Your task to perform on an android device: toggle priority inbox in the gmail app Image 0: 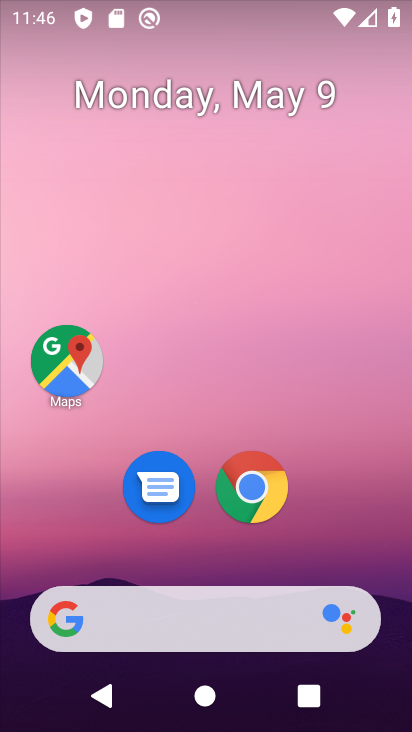
Step 0: drag from (342, 544) to (284, 69)
Your task to perform on an android device: toggle priority inbox in the gmail app Image 1: 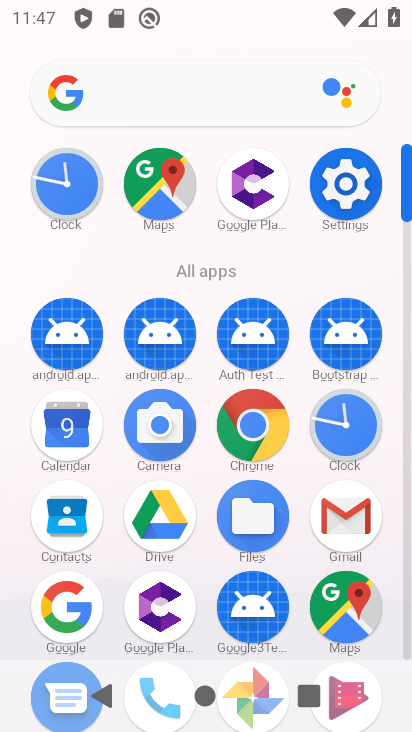
Step 1: click (343, 535)
Your task to perform on an android device: toggle priority inbox in the gmail app Image 2: 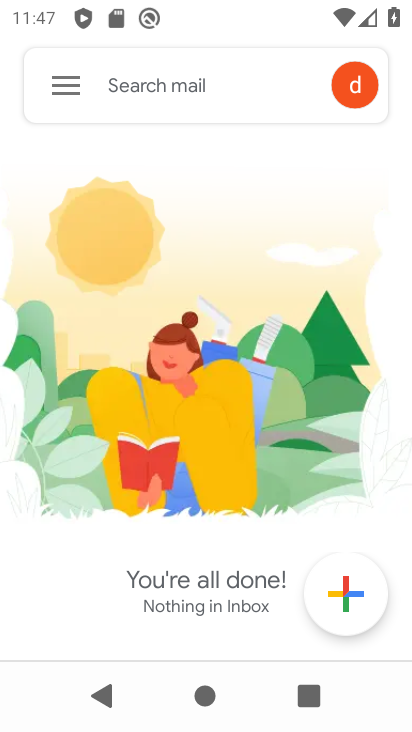
Step 2: click (45, 87)
Your task to perform on an android device: toggle priority inbox in the gmail app Image 3: 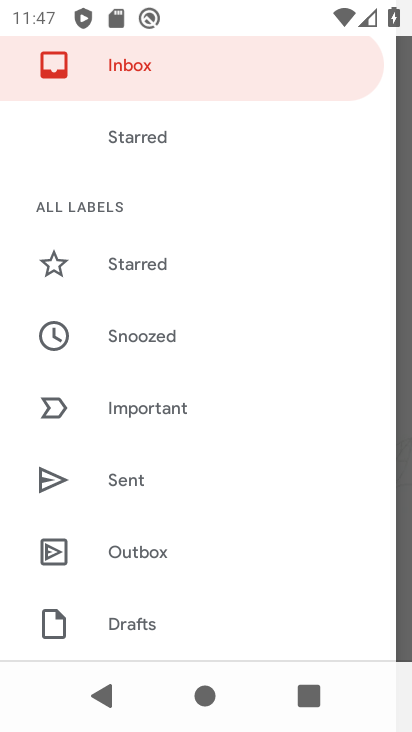
Step 3: drag from (144, 599) to (167, 329)
Your task to perform on an android device: toggle priority inbox in the gmail app Image 4: 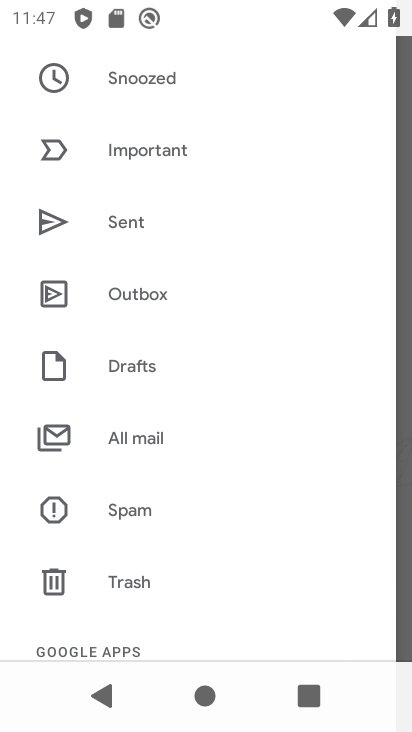
Step 4: drag from (152, 635) to (171, 315)
Your task to perform on an android device: toggle priority inbox in the gmail app Image 5: 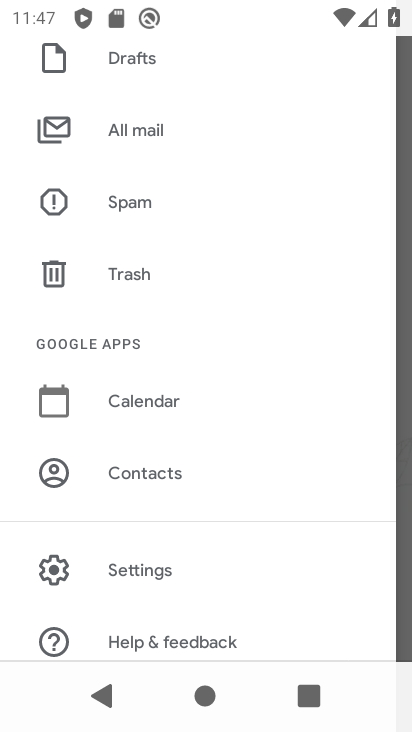
Step 5: click (231, 590)
Your task to perform on an android device: toggle priority inbox in the gmail app Image 6: 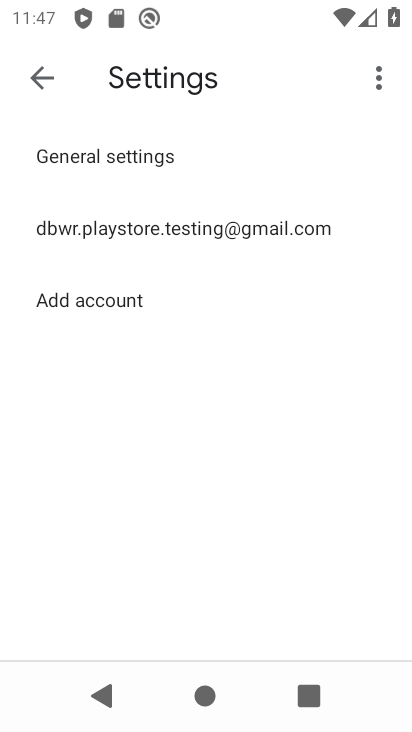
Step 6: click (102, 217)
Your task to perform on an android device: toggle priority inbox in the gmail app Image 7: 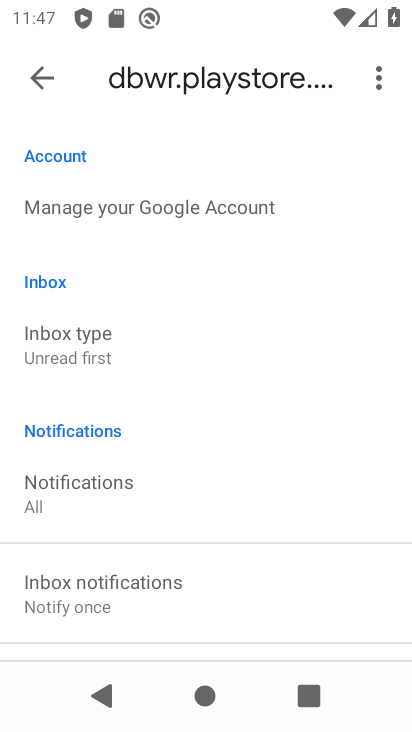
Step 7: click (96, 335)
Your task to perform on an android device: toggle priority inbox in the gmail app Image 8: 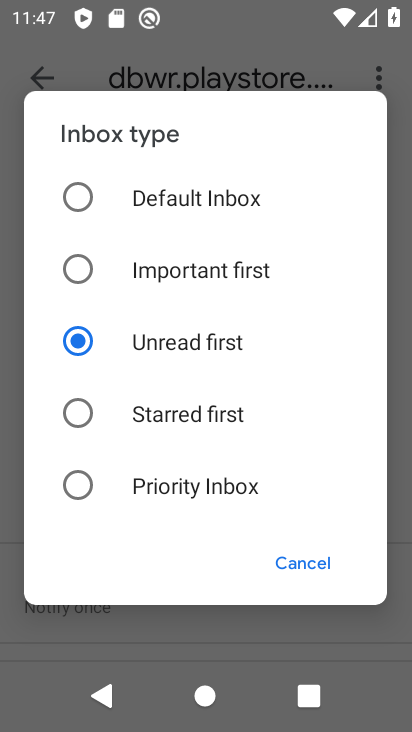
Step 8: click (215, 474)
Your task to perform on an android device: toggle priority inbox in the gmail app Image 9: 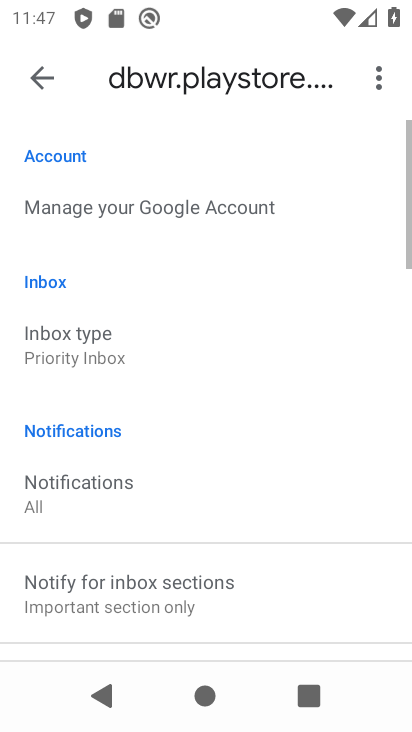
Step 9: task complete